Your task to perform on an android device: Open Amazon Image 0: 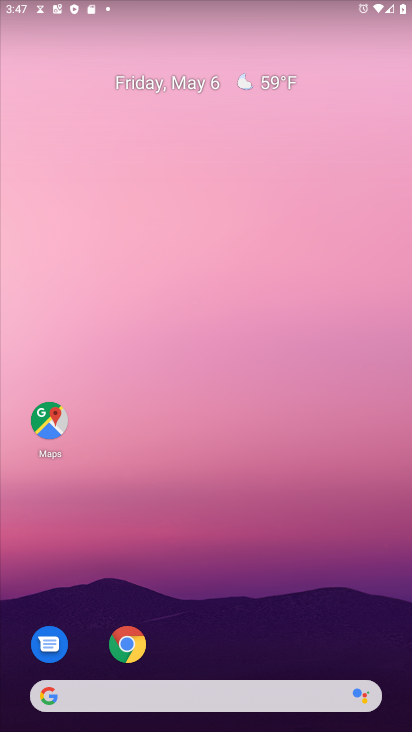
Step 0: click (125, 644)
Your task to perform on an android device: Open Amazon Image 1: 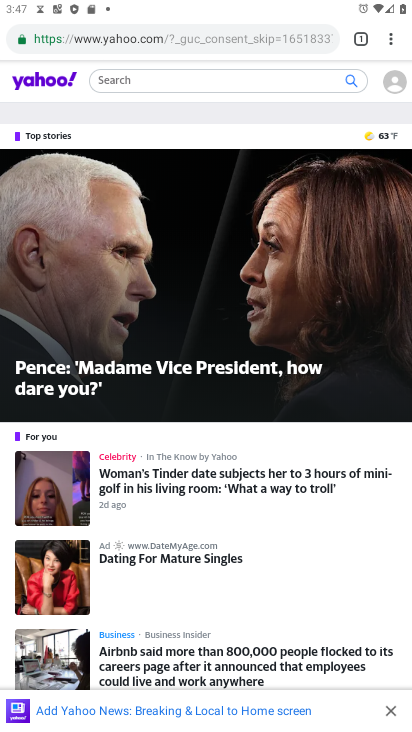
Step 1: click (318, 28)
Your task to perform on an android device: Open Amazon Image 2: 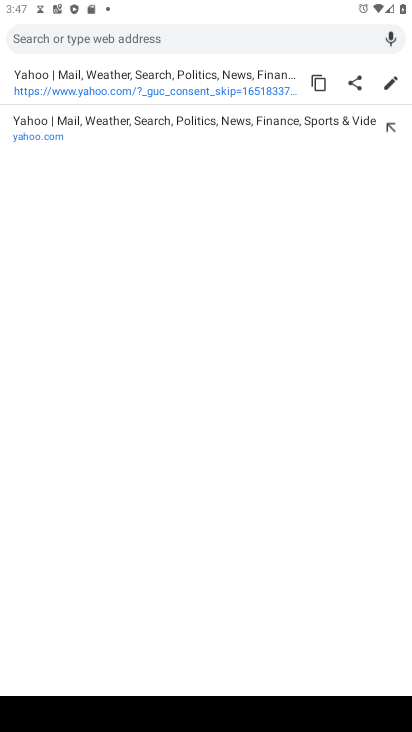
Step 2: type "Amazon"
Your task to perform on an android device: Open Amazon Image 3: 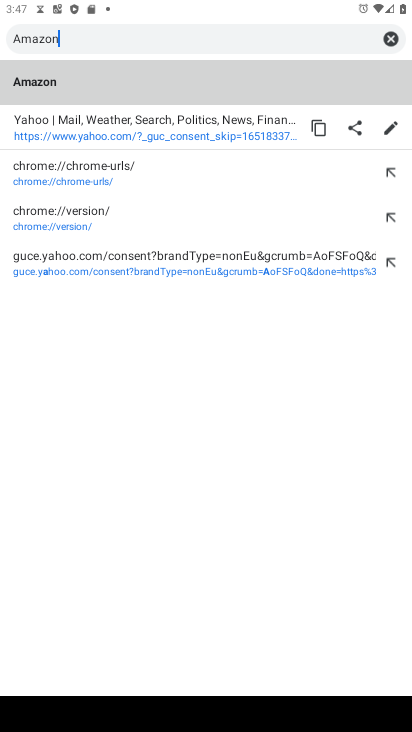
Step 3: type ""
Your task to perform on an android device: Open Amazon Image 4: 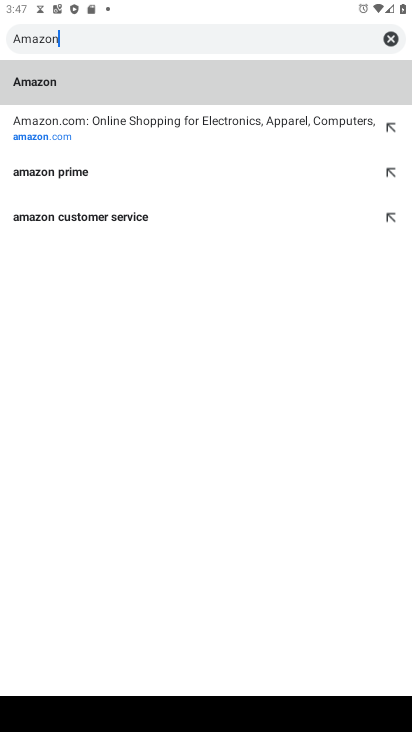
Step 4: click (65, 82)
Your task to perform on an android device: Open Amazon Image 5: 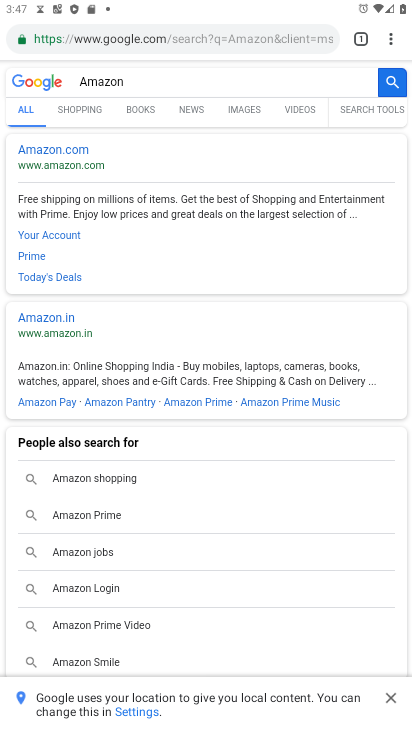
Step 5: click (78, 149)
Your task to perform on an android device: Open Amazon Image 6: 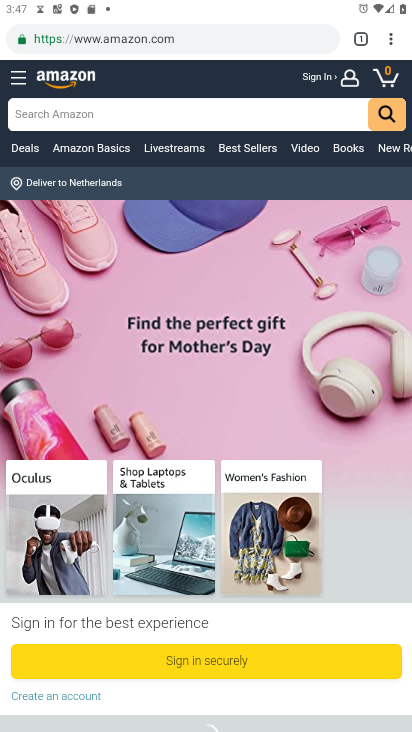
Step 6: task complete